Your task to perform on an android device: Is it going to rain tomorrow? Image 0: 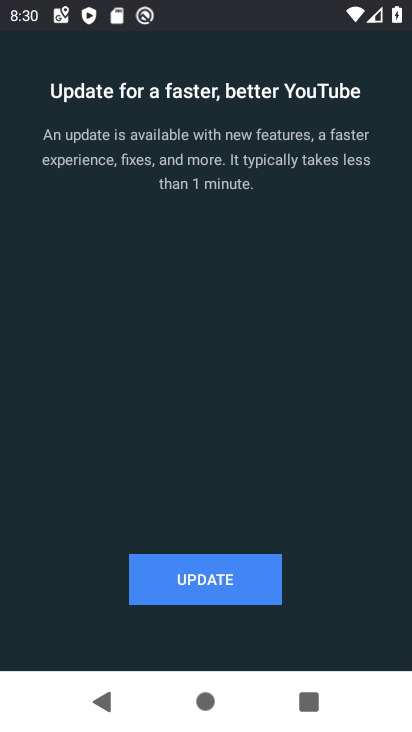
Step 0: press home button
Your task to perform on an android device: Is it going to rain tomorrow? Image 1: 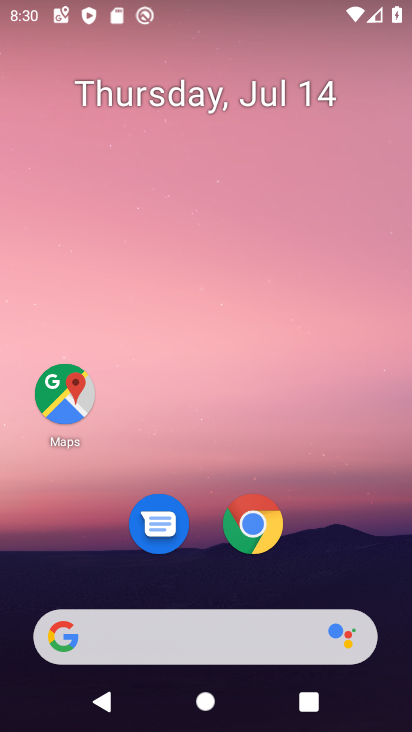
Step 1: click (238, 648)
Your task to perform on an android device: Is it going to rain tomorrow? Image 2: 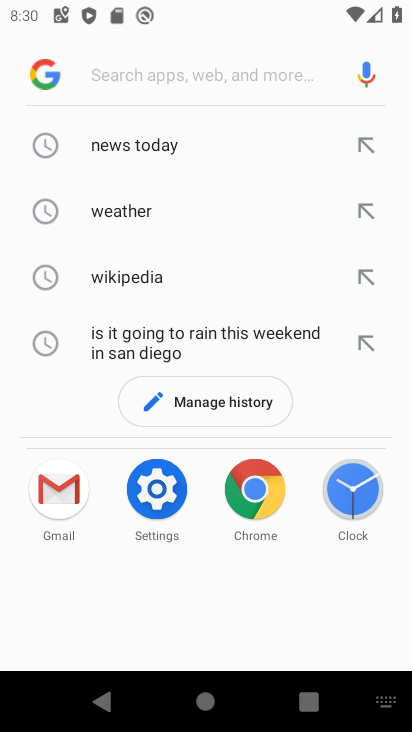
Step 2: click (121, 200)
Your task to perform on an android device: Is it going to rain tomorrow? Image 3: 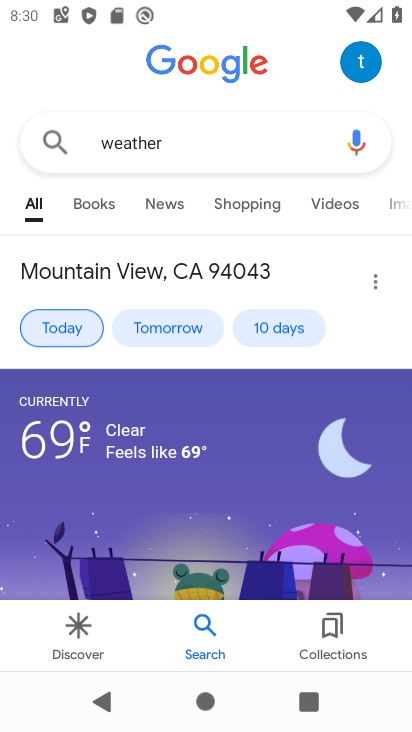
Step 3: click (86, 328)
Your task to perform on an android device: Is it going to rain tomorrow? Image 4: 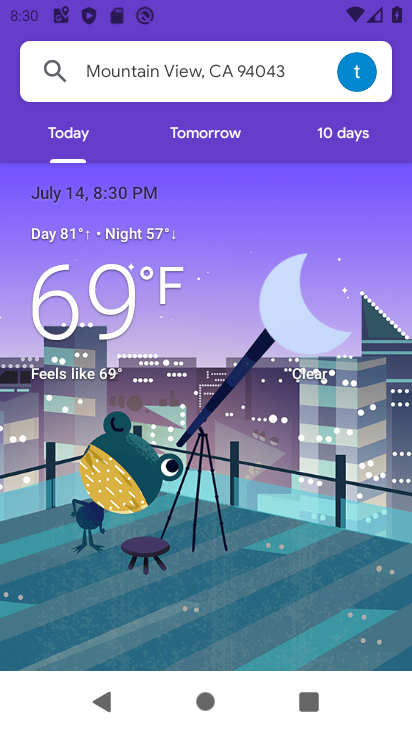
Step 4: click (198, 127)
Your task to perform on an android device: Is it going to rain tomorrow? Image 5: 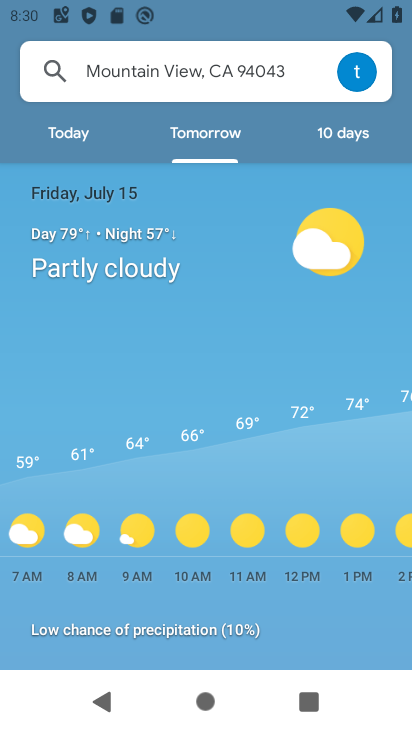
Step 5: task complete